Your task to perform on an android device: Open wifi settings Image 0: 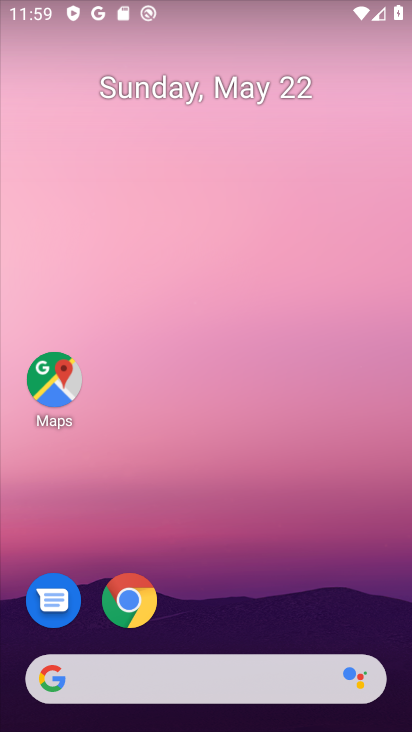
Step 0: drag from (341, 602) to (285, 74)
Your task to perform on an android device: Open wifi settings Image 1: 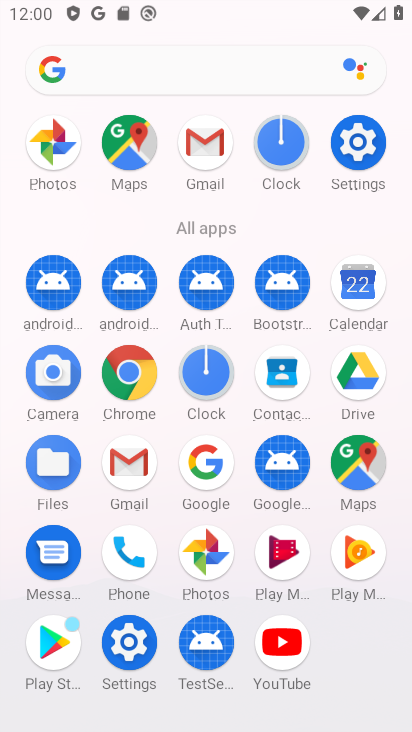
Step 1: click (361, 152)
Your task to perform on an android device: Open wifi settings Image 2: 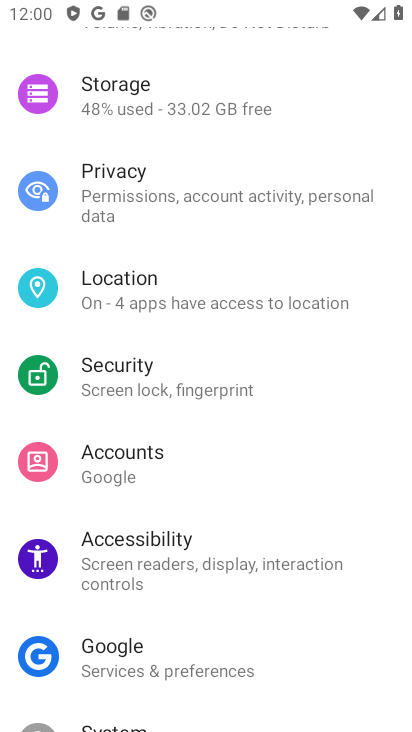
Step 2: drag from (249, 115) to (196, 630)
Your task to perform on an android device: Open wifi settings Image 3: 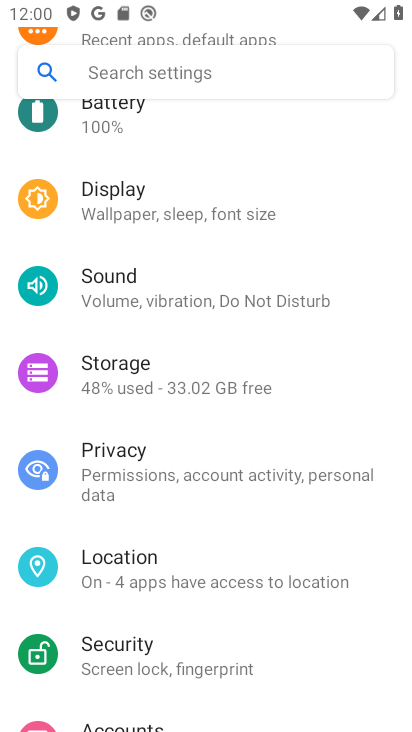
Step 3: drag from (184, 230) to (192, 610)
Your task to perform on an android device: Open wifi settings Image 4: 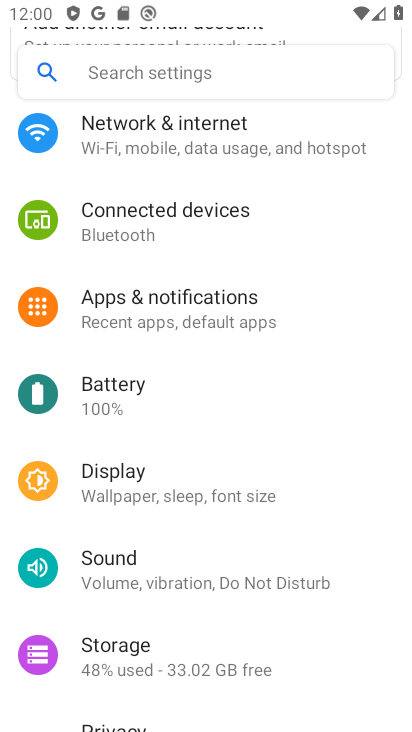
Step 4: drag from (230, 294) to (230, 684)
Your task to perform on an android device: Open wifi settings Image 5: 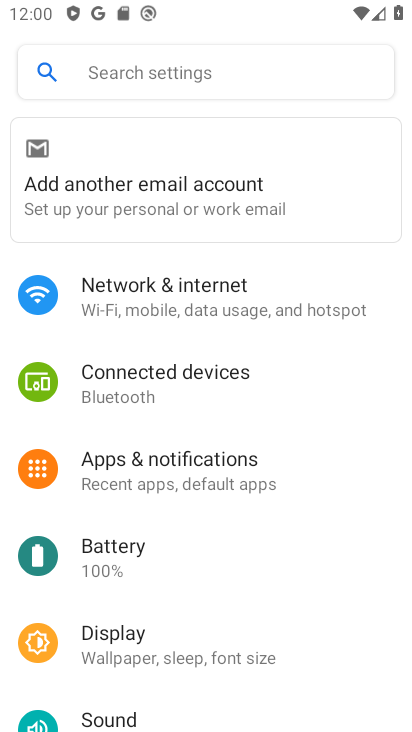
Step 5: click (211, 310)
Your task to perform on an android device: Open wifi settings Image 6: 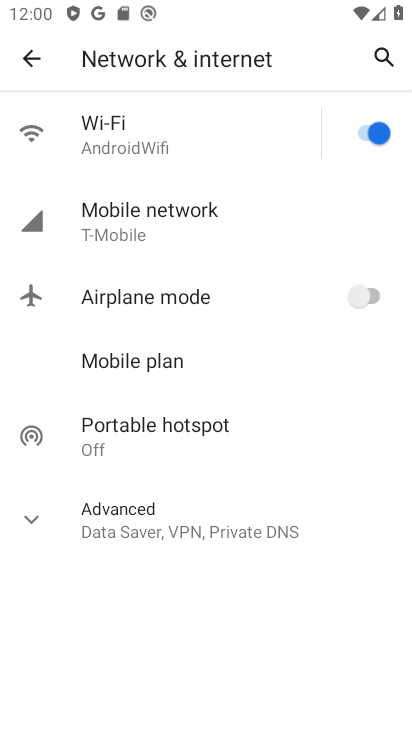
Step 6: click (185, 164)
Your task to perform on an android device: Open wifi settings Image 7: 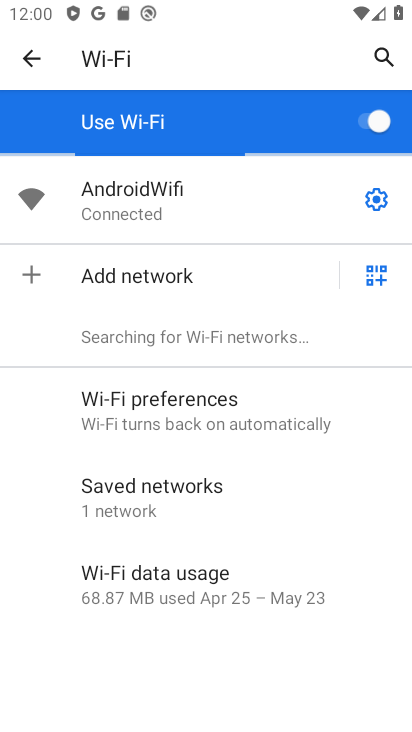
Step 7: task complete